Your task to perform on an android device: turn pop-ups off in chrome Image 0: 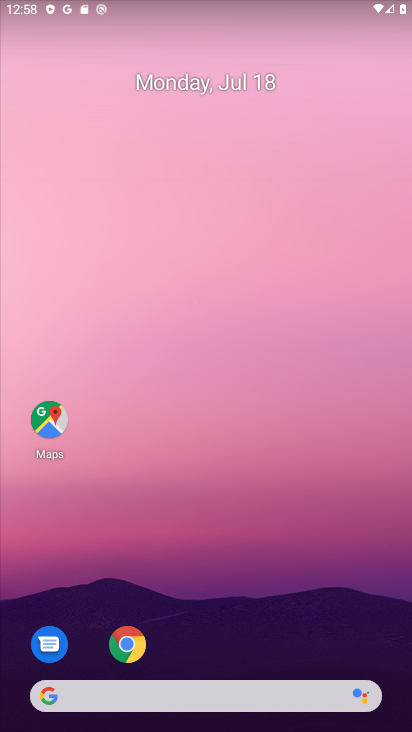
Step 0: click (397, 665)
Your task to perform on an android device: turn pop-ups off in chrome Image 1: 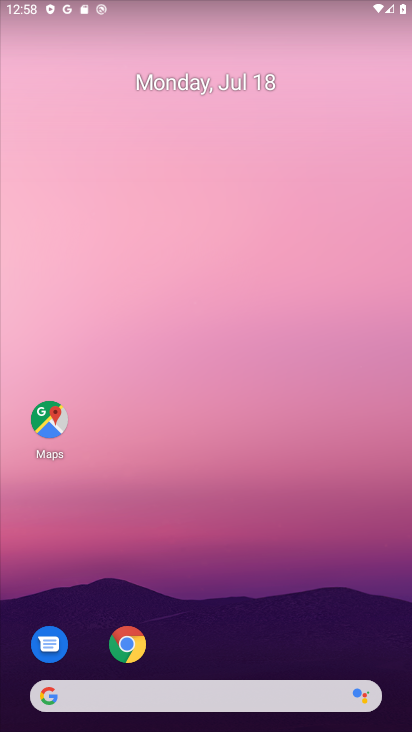
Step 1: drag from (253, 685) to (300, 65)
Your task to perform on an android device: turn pop-ups off in chrome Image 2: 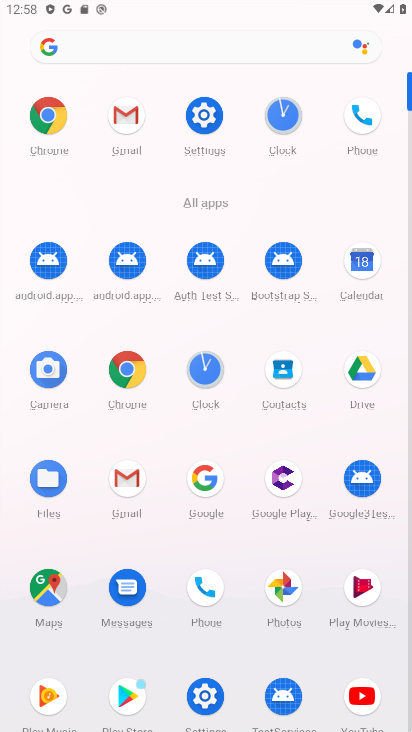
Step 2: click (137, 378)
Your task to perform on an android device: turn pop-ups off in chrome Image 3: 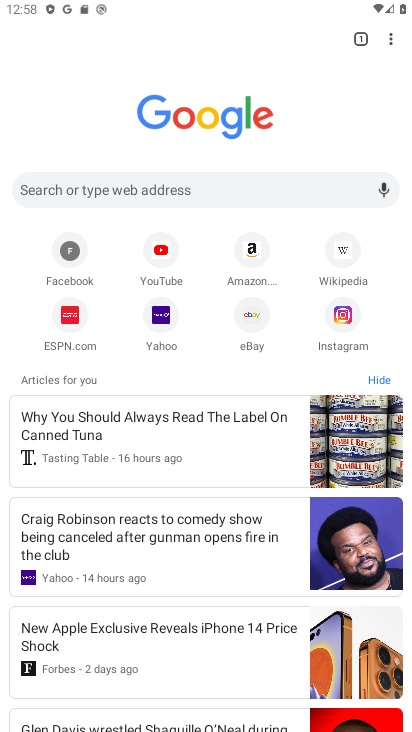
Step 3: drag from (406, 38) to (310, 323)
Your task to perform on an android device: turn pop-ups off in chrome Image 4: 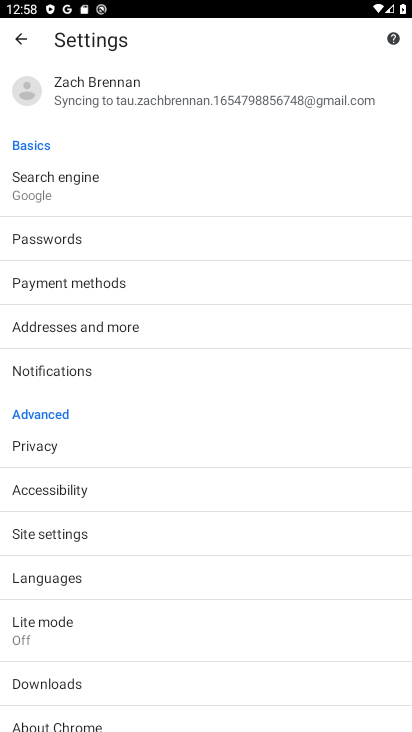
Step 4: click (89, 523)
Your task to perform on an android device: turn pop-ups off in chrome Image 5: 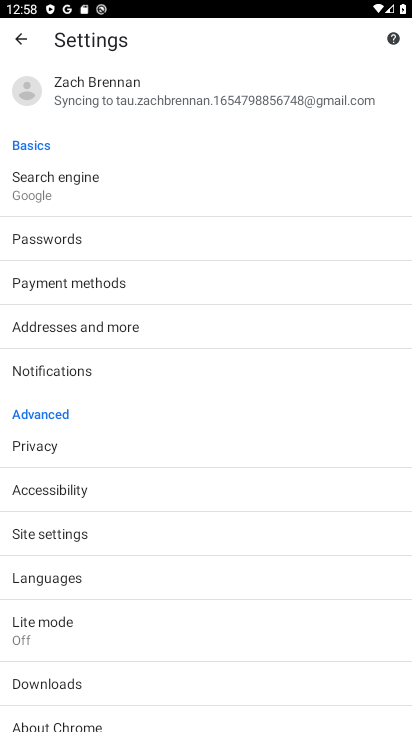
Step 5: click (143, 542)
Your task to perform on an android device: turn pop-ups off in chrome Image 6: 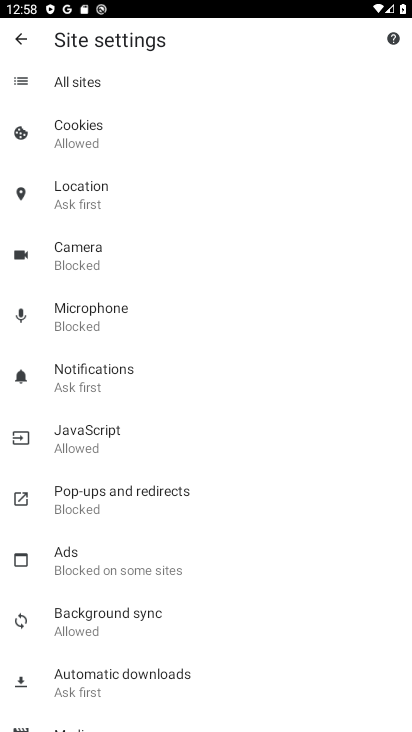
Step 6: click (148, 518)
Your task to perform on an android device: turn pop-ups off in chrome Image 7: 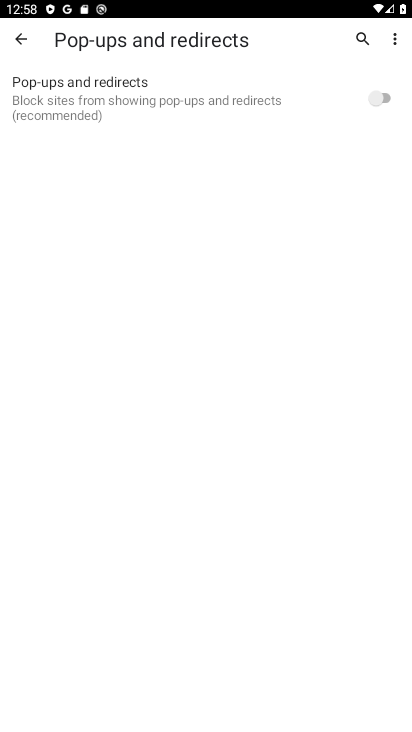
Step 7: task complete